Your task to perform on an android device: Open privacy settings Image 0: 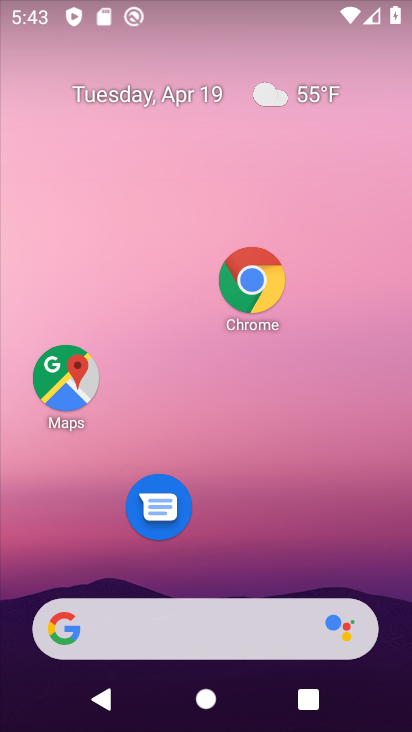
Step 0: drag from (197, 598) to (221, 322)
Your task to perform on an android device: Open privacy settings Image 1: 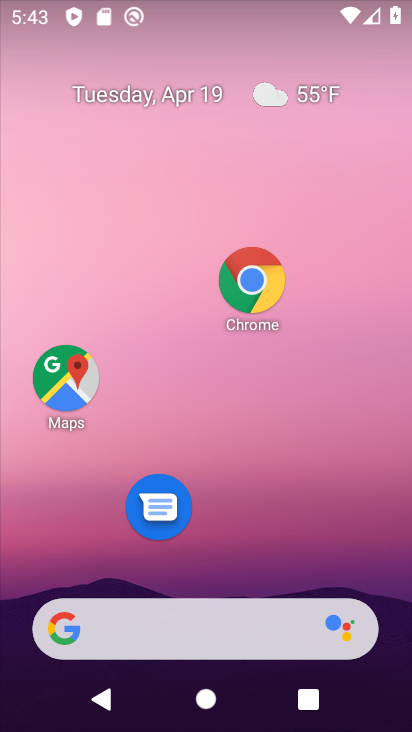
Step 1: drag from (189, 589) to (172, 243)
Your task to perform on an android device: Open privacy settings Image 2: 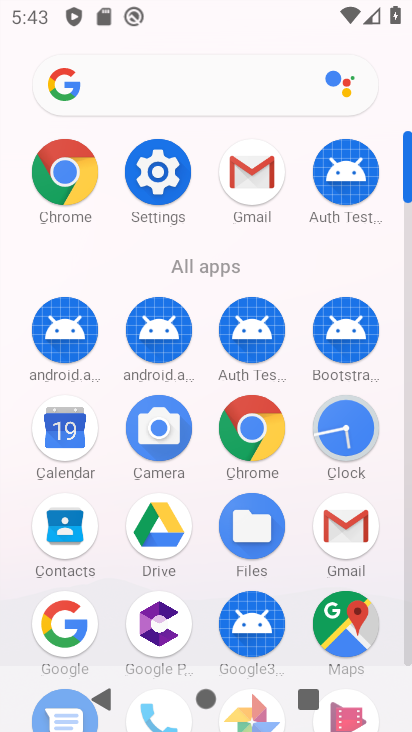
Step 2: click (152, 175)
Your task to perform on an android device: Open privacy settings Image 3: 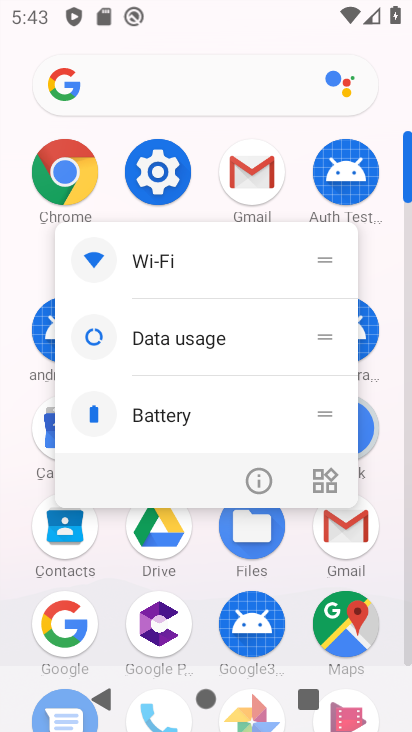
Step 3: click (159, 164)
Your task to perform on an android device: Open privacy settings Image 4: 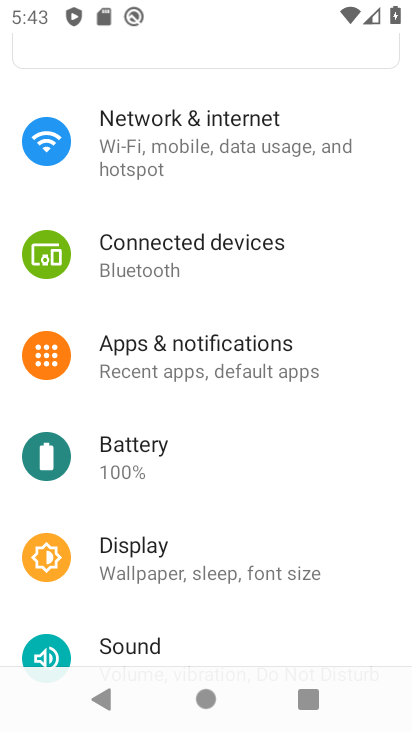
Step 4: drag from (186, 635) to (192, 324)
Your task to perform on an android device: Open privacy settings Image 5: 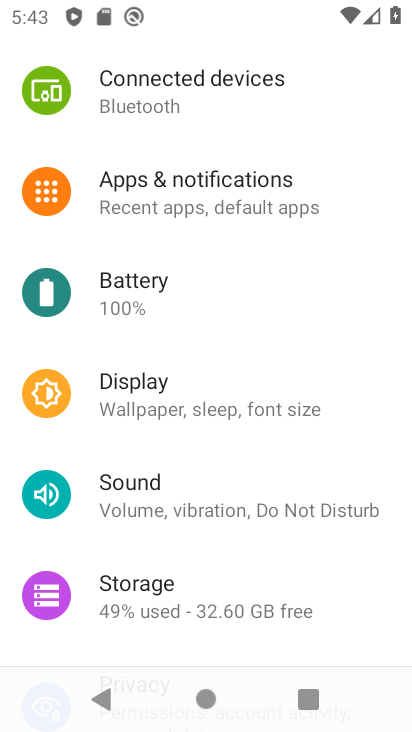
Step 5: drag from (189, 600) to (206, 290)
Your task to perform on an android device: Open privacy settings Image 6: 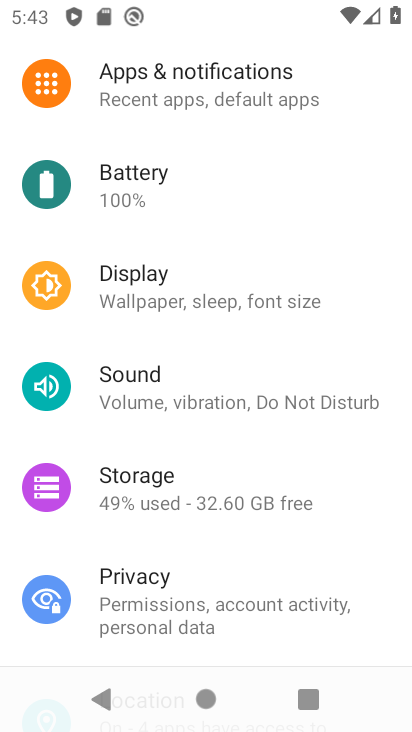
Step 6: click (157, 594)
Your task to perform on an android device: Open privacy settings Image 7: 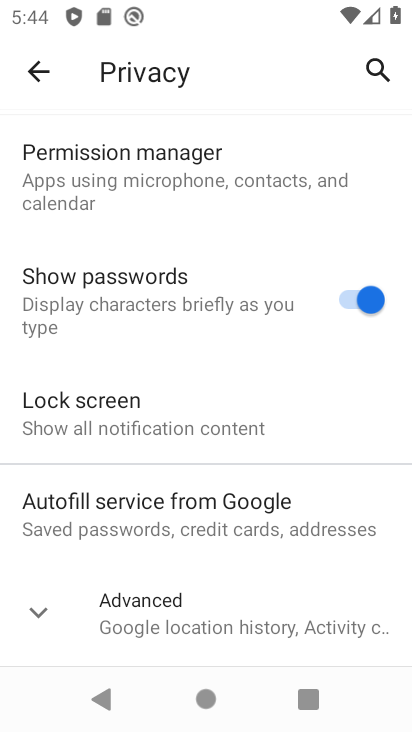
Step 7: click (158, 612)
Your task to perform on an android device: Open privacy settings Image 8: 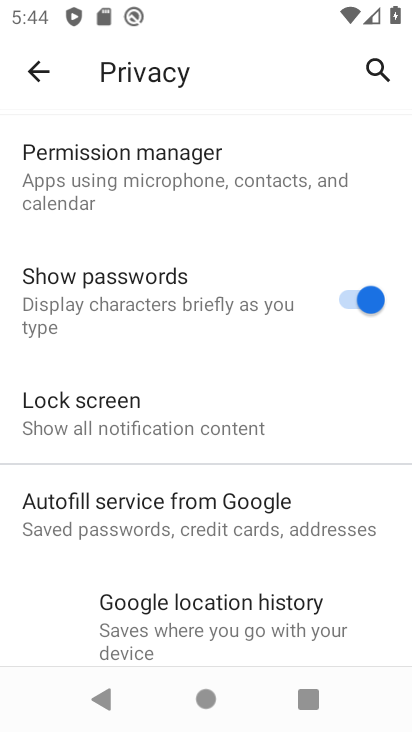
Step 8: task complete